Your task to perform on an android device: toggle javascript in the chrome app Image 0: 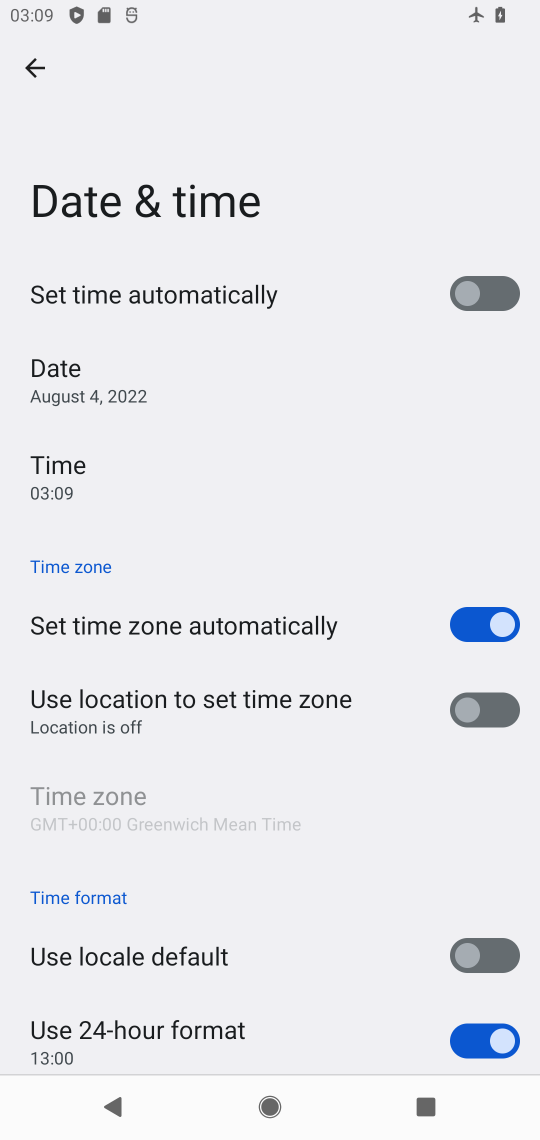
Step 0: press home button
Your task to perform on an android device: toggle javascript in the chrome app Image 1: 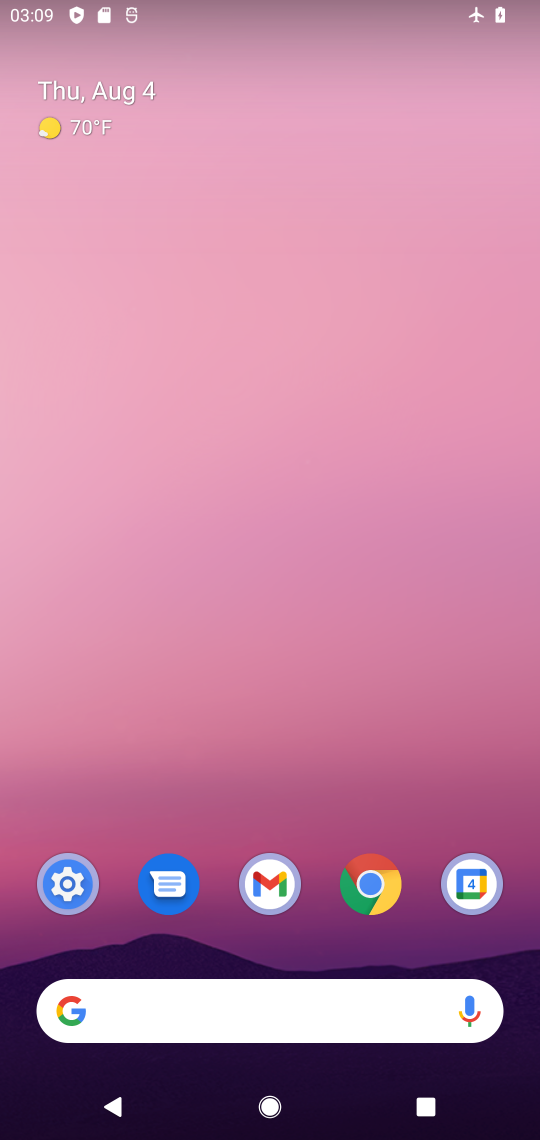
Step 1: drag from (321, 845) to (293, 221)
Your task to perform on an android device: toggle javascript in the chrome app Image 2: 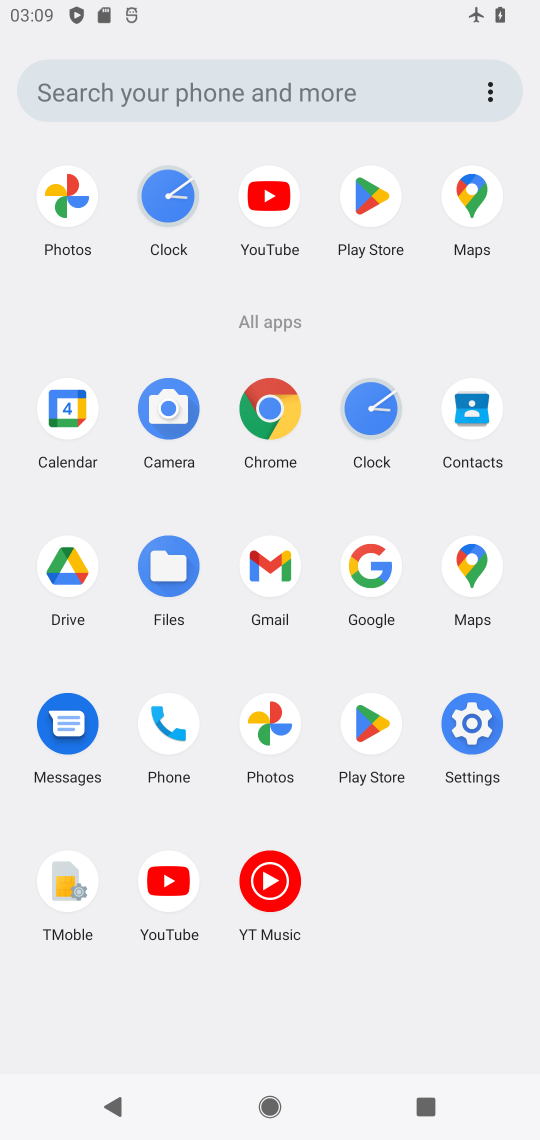
Step 2: click (263, 423)
Your task to perform on an android device: toggle javascript in the chrome app Image 3: 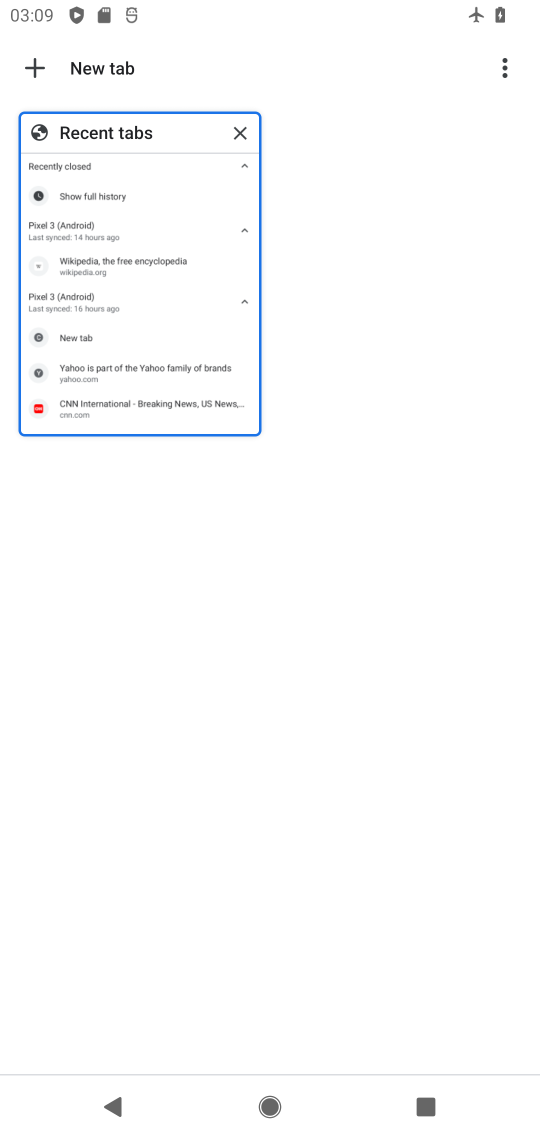
Step 3: press back button
Your task to perform on an android device: toggle javascript in the chrome app Image 4: 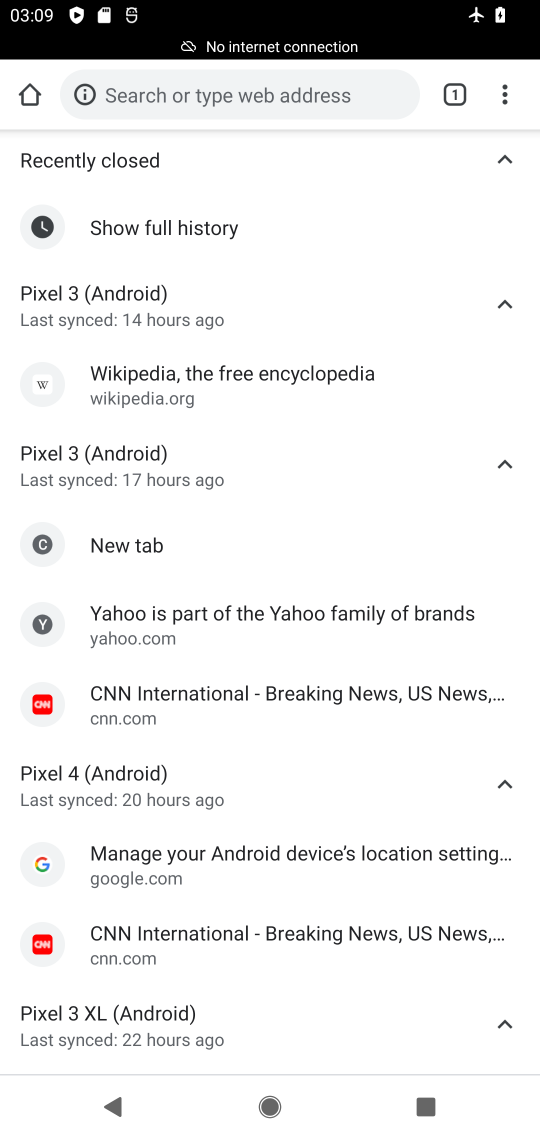
Step 4: click (503, 104)
Your task to perform on an android device: toggle javascript in the chrome app Image 5: 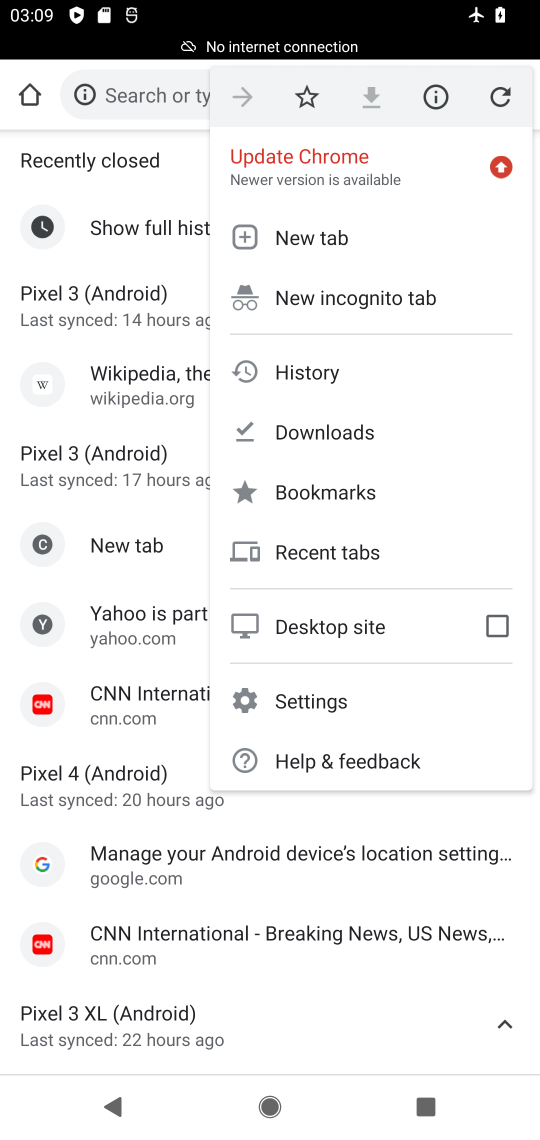
Step 5: click (321, 700)
Your task to perform on an android device: toggle javascript in the chrome app Image 6: 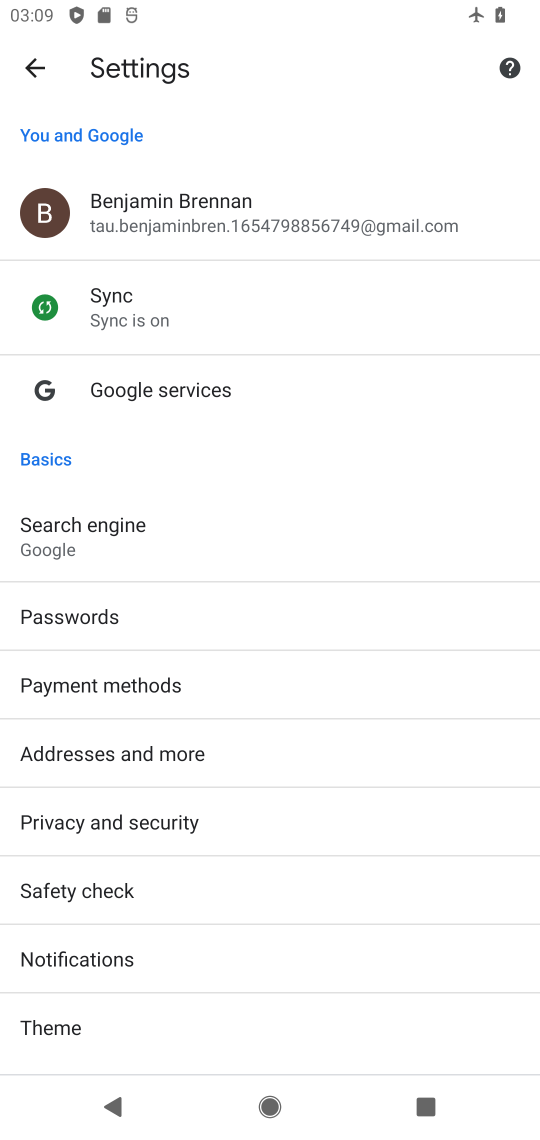
Step 6: drag from (318, 904) to (330, 729)
Your task to perform on an android device: toggle javascript in the chrome app Image 7: 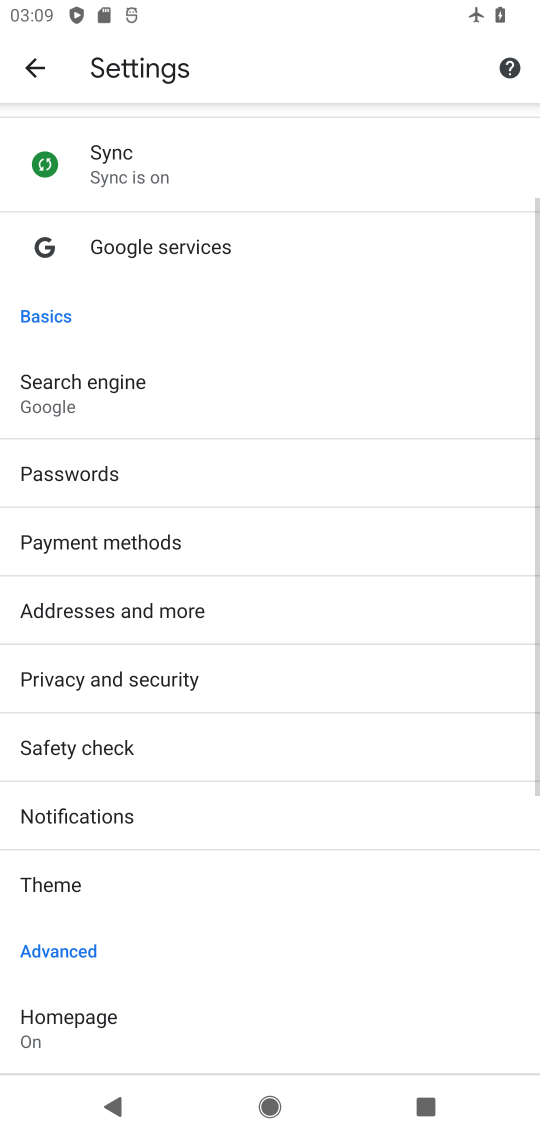
Step 7: drag from (342, 949) to (358, 677)
Your task to perform on an android device: toggle javascript in the chrome app Image 8: 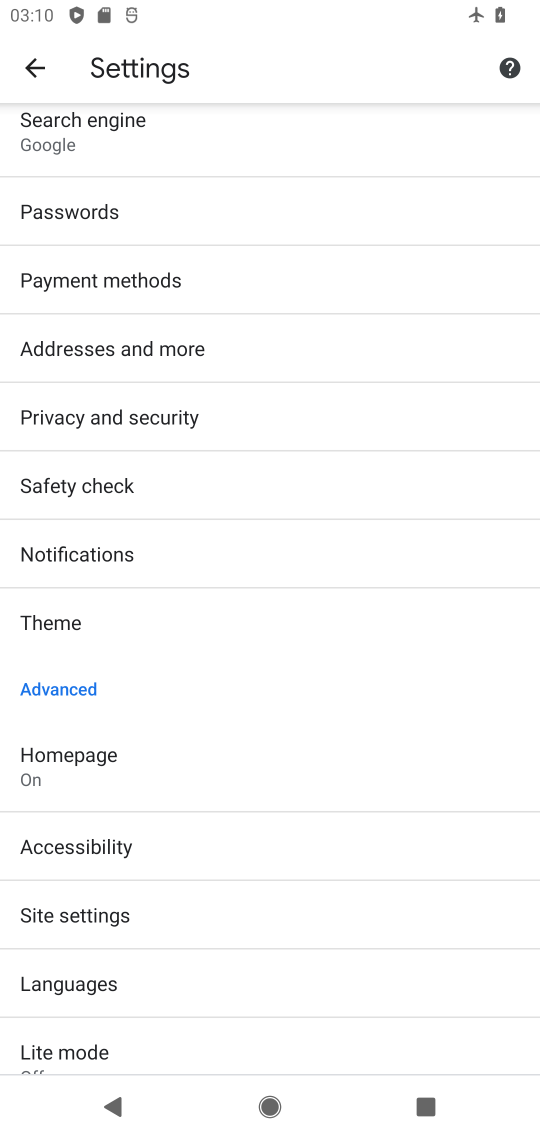
Step 8: drag from (312, 960) to (330, 678)
Your task to perform on an android device: toggle javascript in the chrome app Image 9: 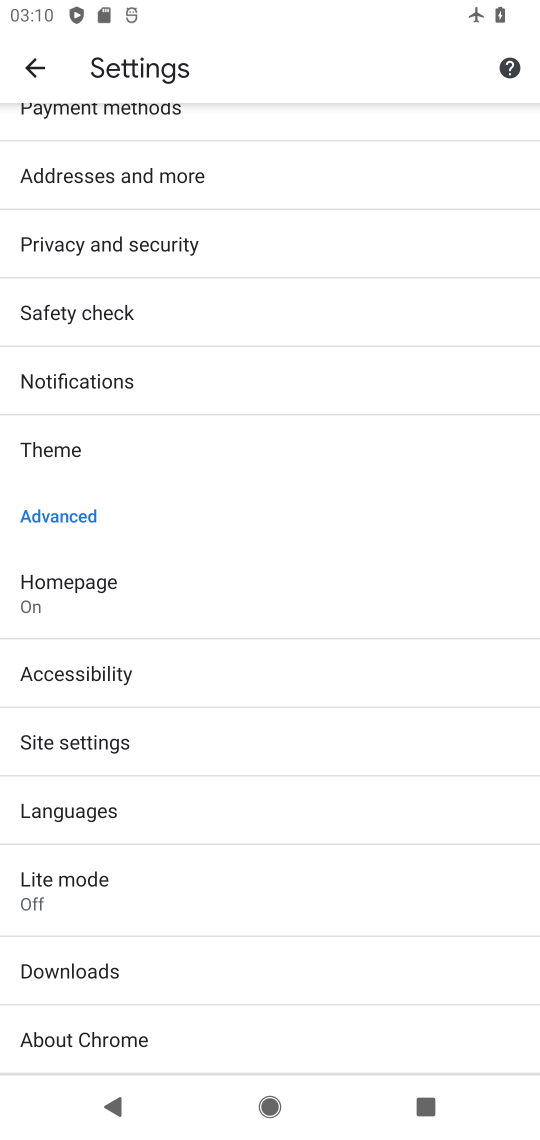
Step 9: click (324, 750)
Your task to perform on an android device: toggle javascript in the chrome app Image 10: 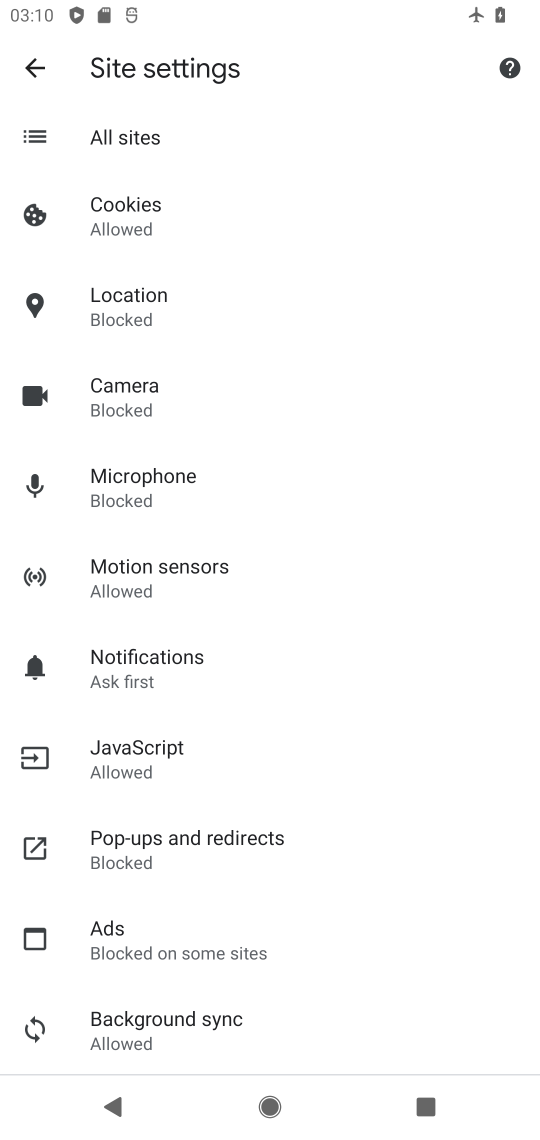
Step 10: click (181, 773)
Your task to perform on an android device: toggle javascript in the chrome app Image 11: 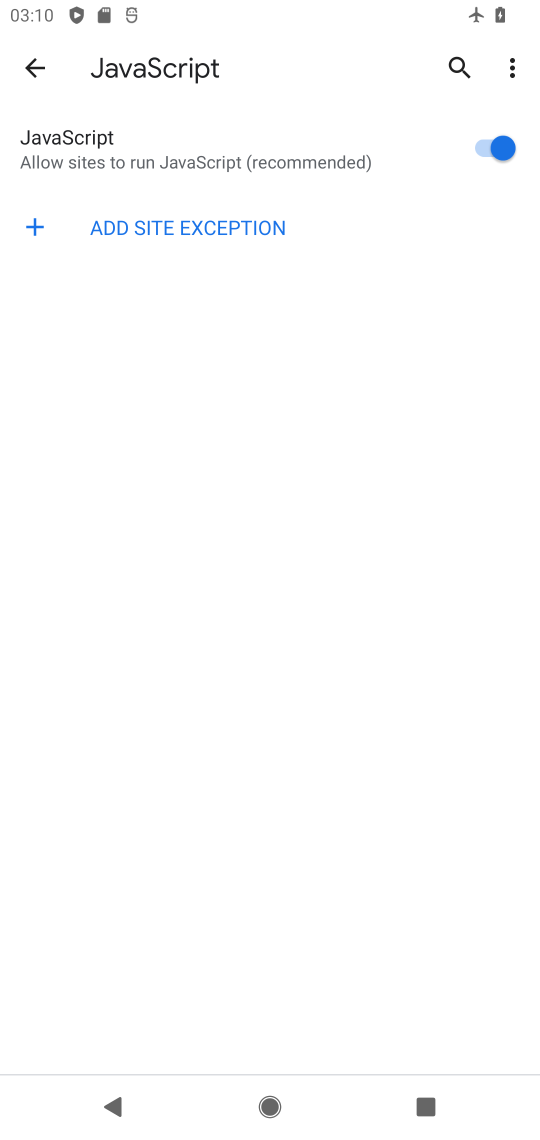
Step 11: click (503, 145)
Your task to perform on an android device: toggle javascript in the chrome app Image 12: 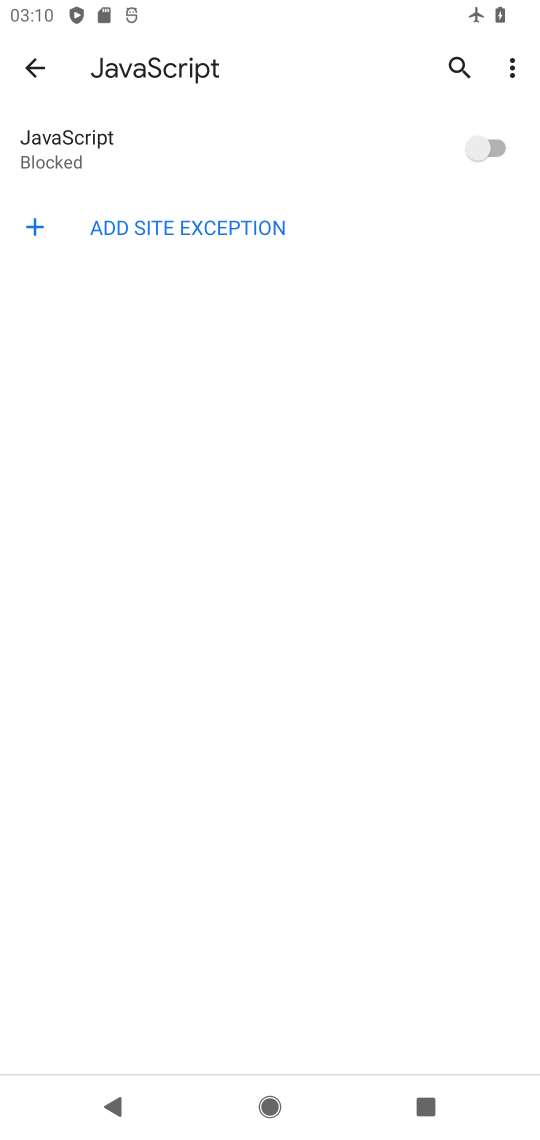
Step 12: task complete